Your task to perform on an android device: Open privacy settings Image 0: 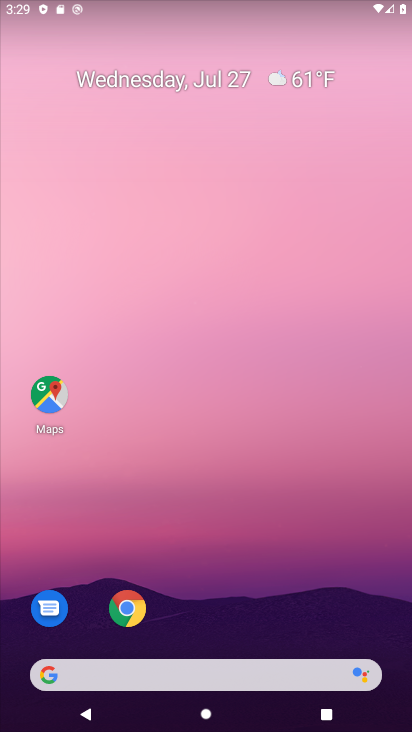
Step 0: drag from (242, 705) to (227, 317)
Your task to perform on an android device: Open privacy settings Image 1: 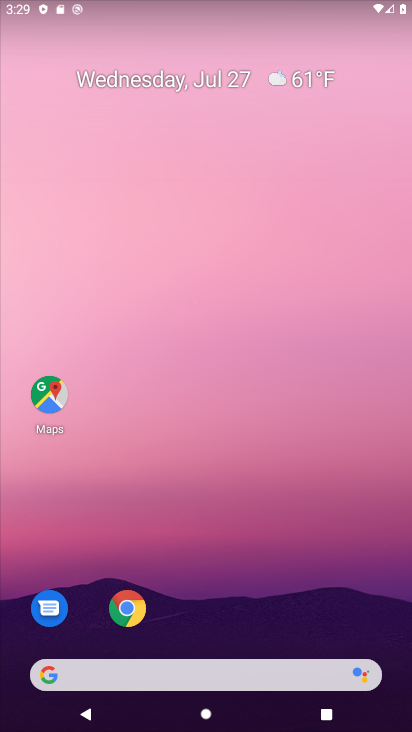
Step 1: drag from (223, 719) to (247, 119)
Your task to perform on an android device: Open privacy settings Image 2: 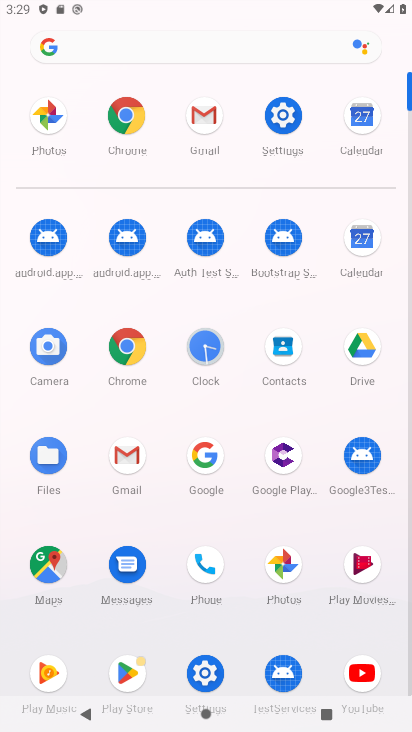
Step 2: click (286, 113)
Your task to perform on an android device: Open privacy settings Image 3: 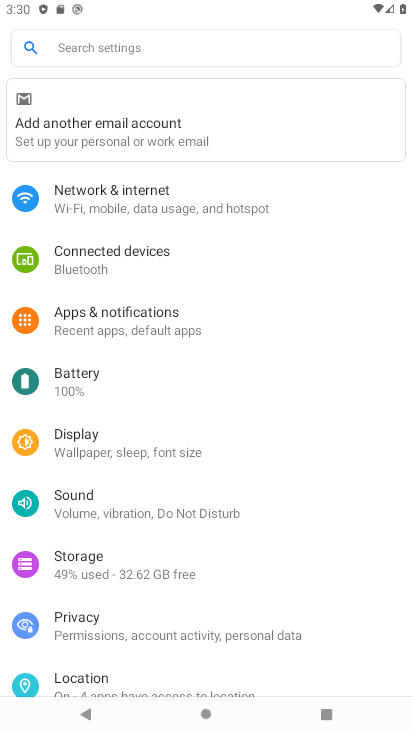
Step 3: click (77, 624)
Your task to perform on an android device: Open privacy settings Image 4: 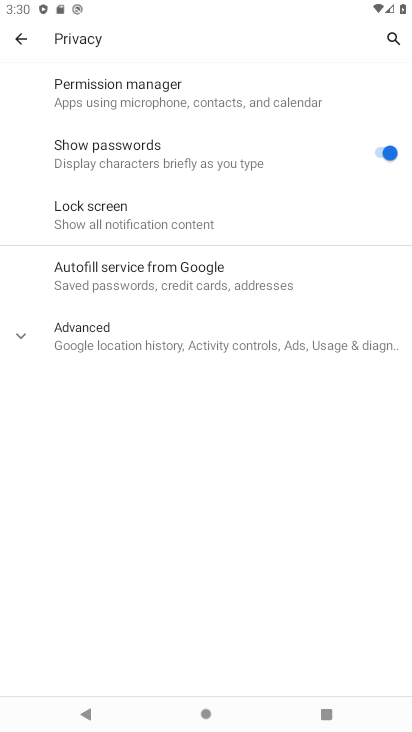
Step 4: task complete